Your task to perform on an android device: Open the calendar app, open the side menu, and click the "Day" option Image 0: 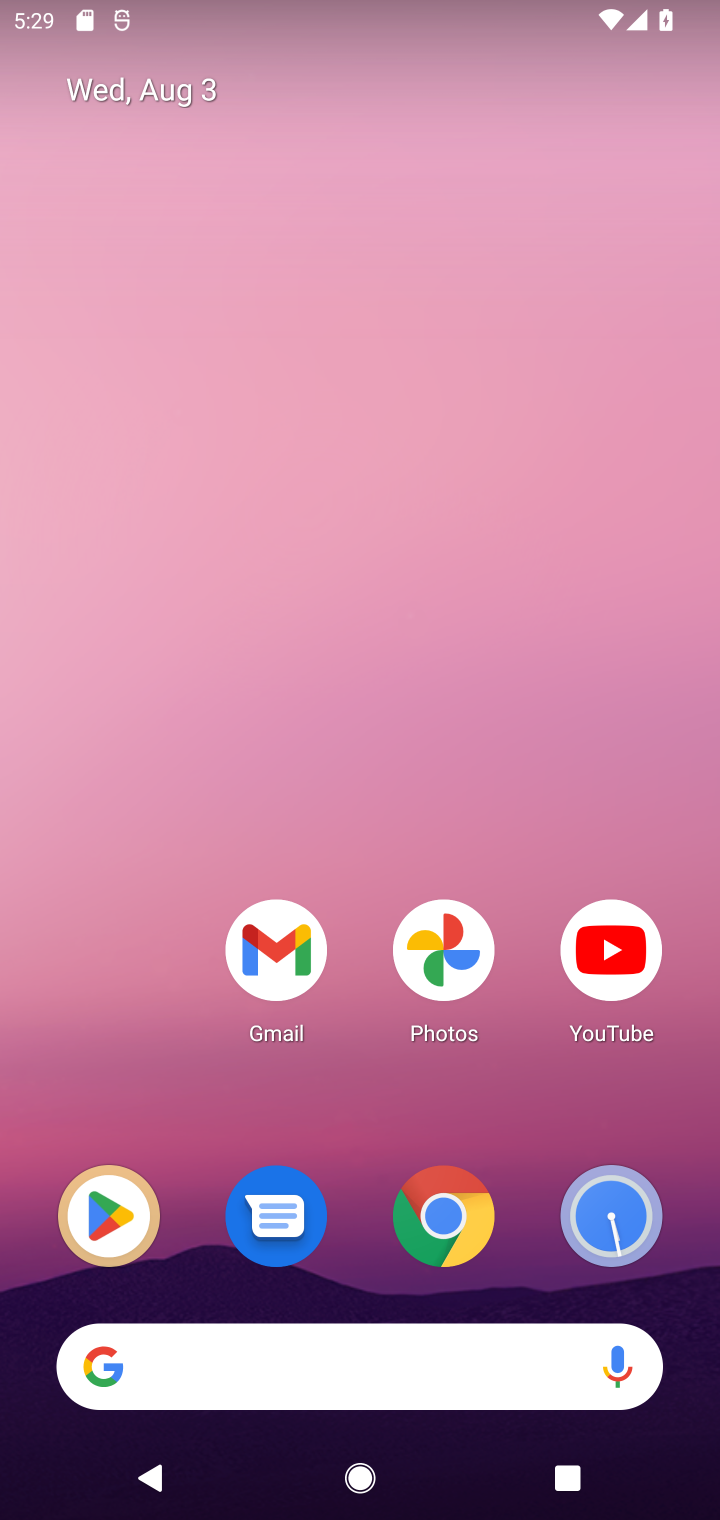
Step 0: drag from (325, 1380) to (257, 60)
Your task to perform on an android device: Open the calendar app, open the side menu, and click the "Day" option Image 1: 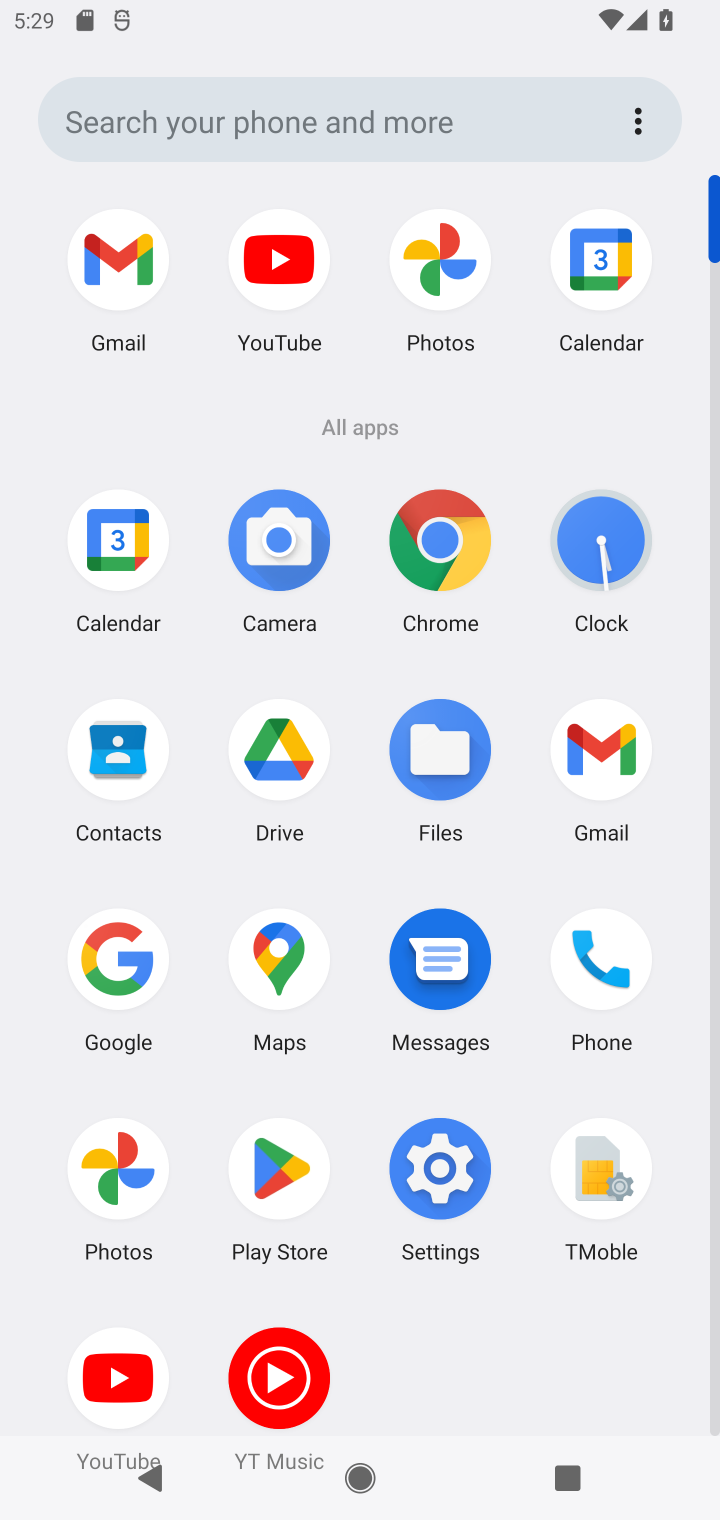
Step 1: click (122, 551)
Your task to perform on an android device: Open the calendar app, open the side menu, and click the "Day" option Image 2: 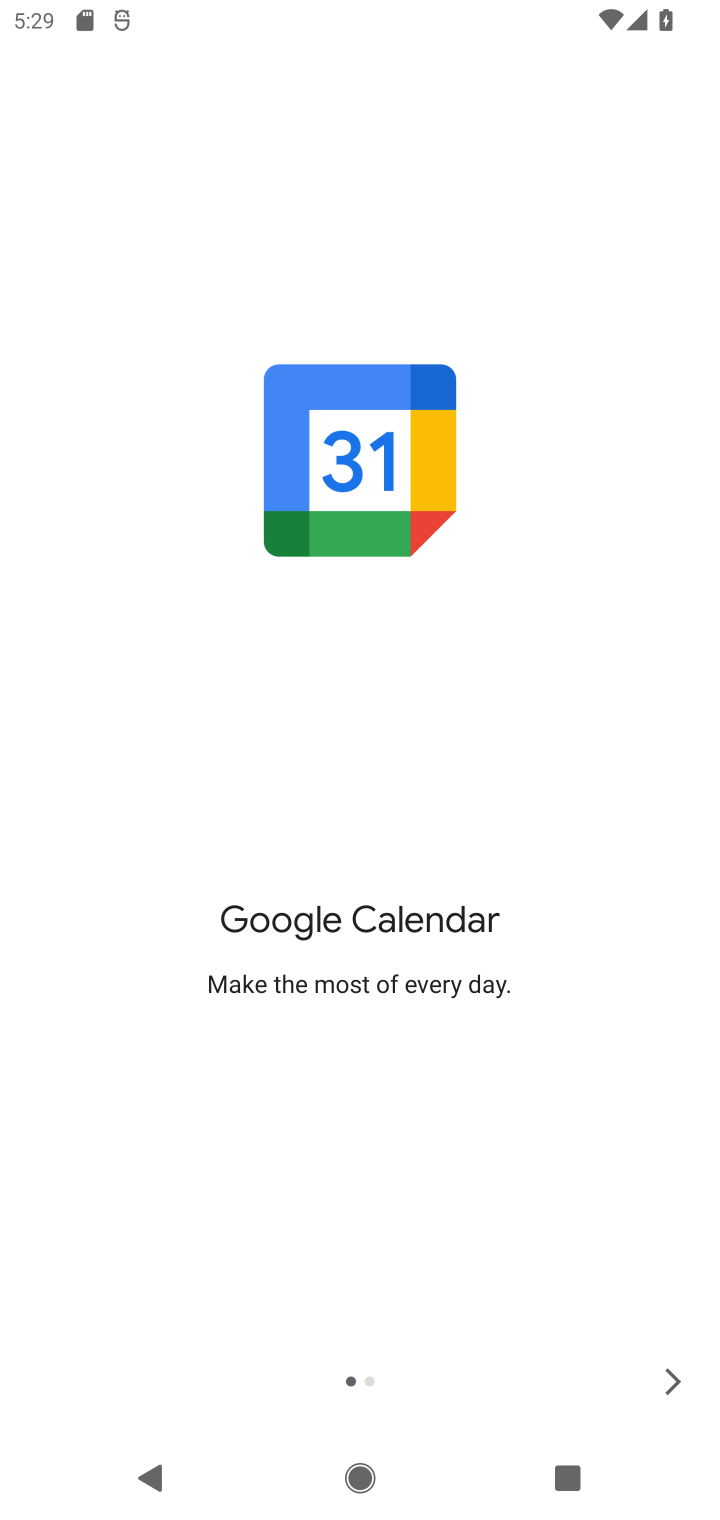
Step 2: click (677, 1375)
Your task to perform on an android device: Open the calendar app, open the side menu, and click the "Day" option Image 3: 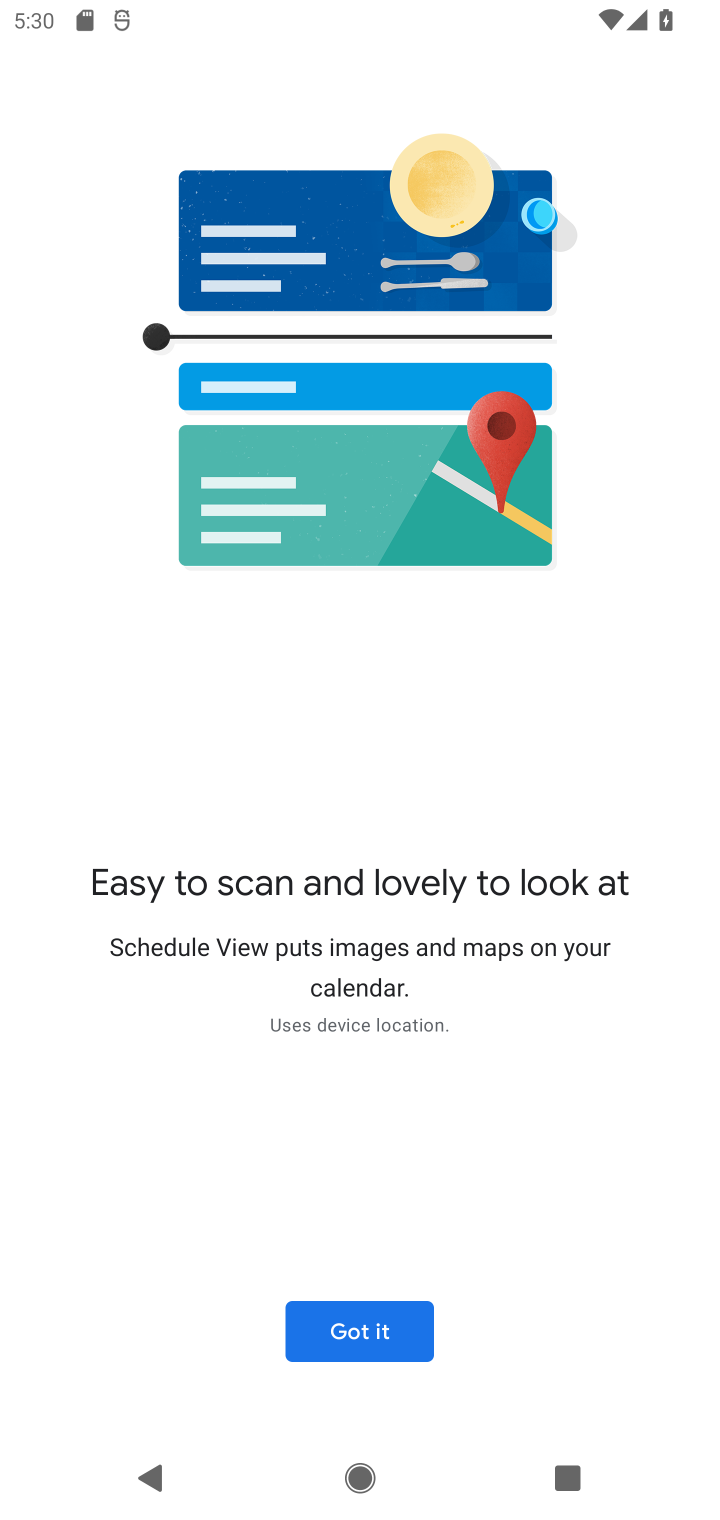
Step 3: click (334, 1330)
Your task to perform on an android device: Open the calendar app, open the side menu, and click the "Day" option Image 4: 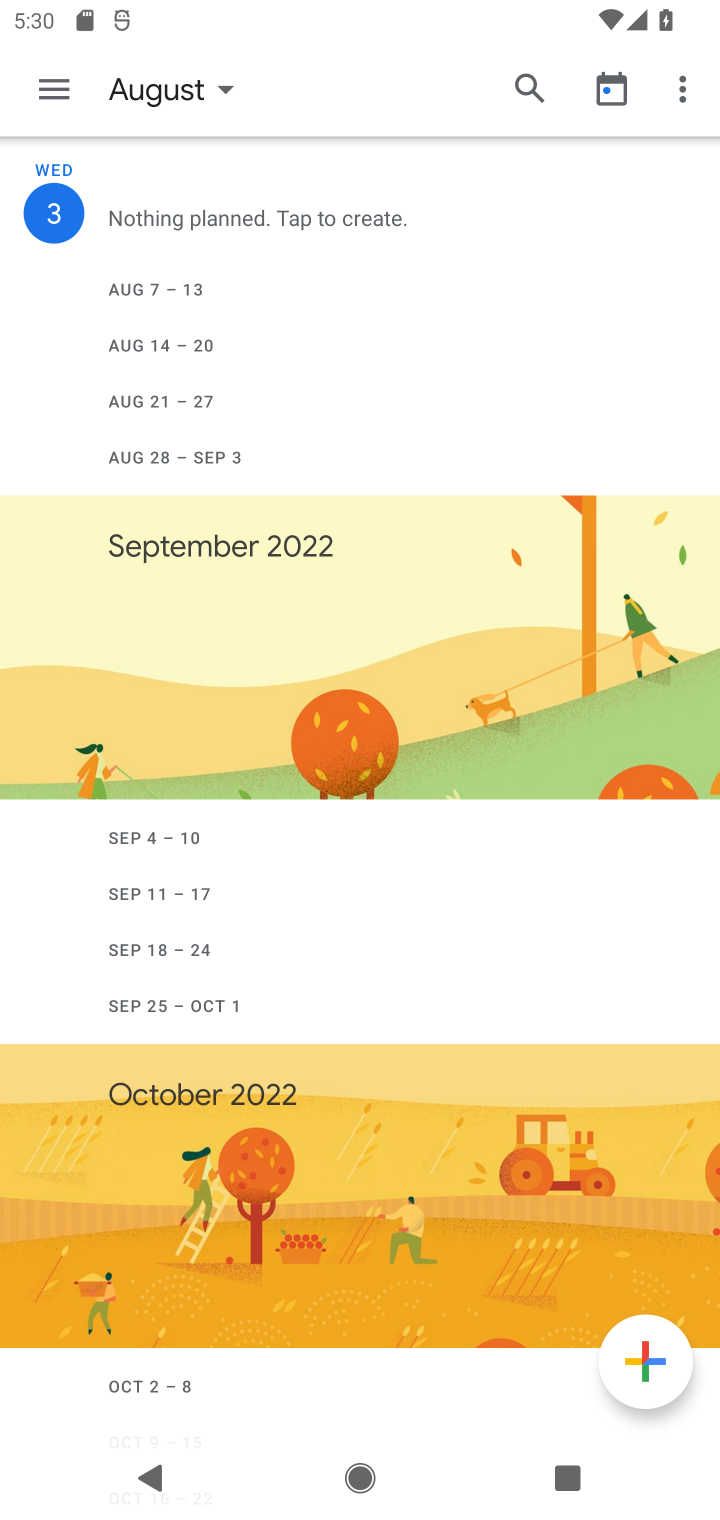
Step 4: click (54, 98)
Your task to perform on an android device: Open the calendar app, open the side menu, and click the "Day" option Image 5: 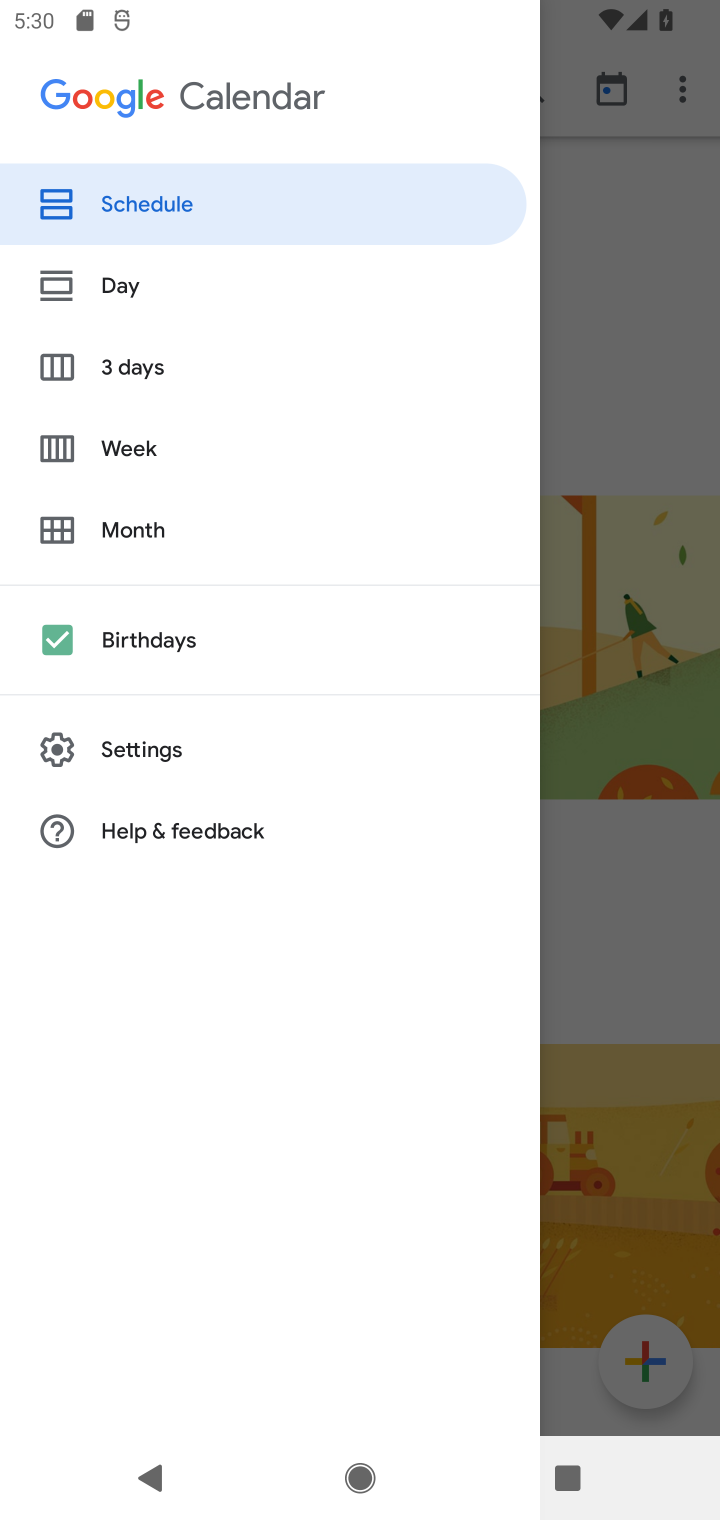
Step 5: click (143, 290)
Your task to perform on an android device: Open the calendar app, open the side menu, and click the "Day" option Image 6: 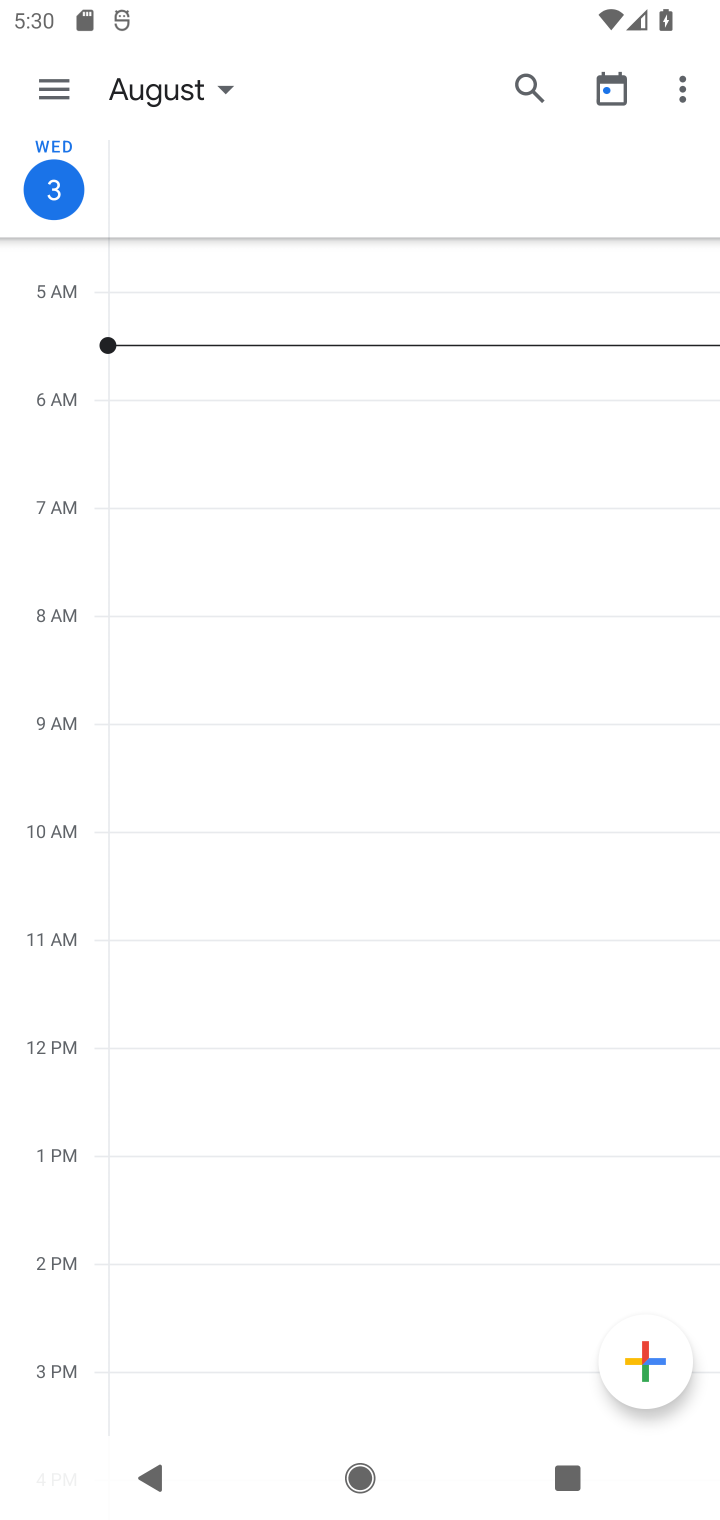
Step 6: task complete